Your task to perform on an android device: turn off improve location accuracy Image 0: 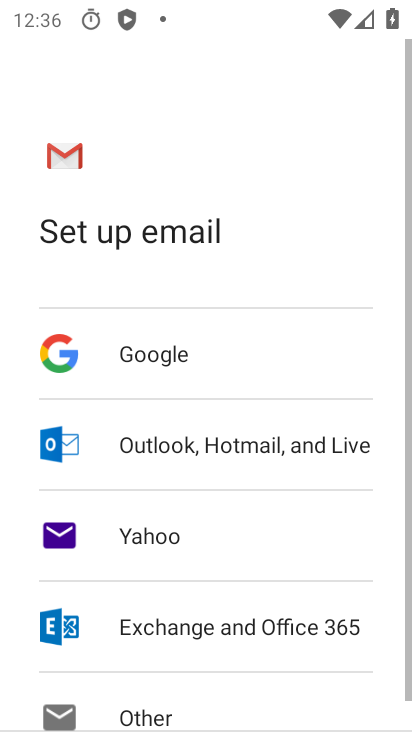
Step 0: press home button
Your task to perform on an android device: turn off improve location accuracy Image 1: 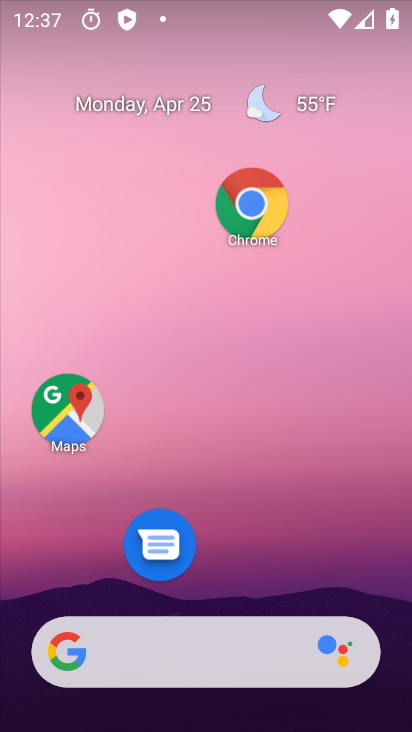
Step 1: drag from (288, 688) to (183, 198)
Your task to perform on an android device: turn off improve location accuracy Image 2: 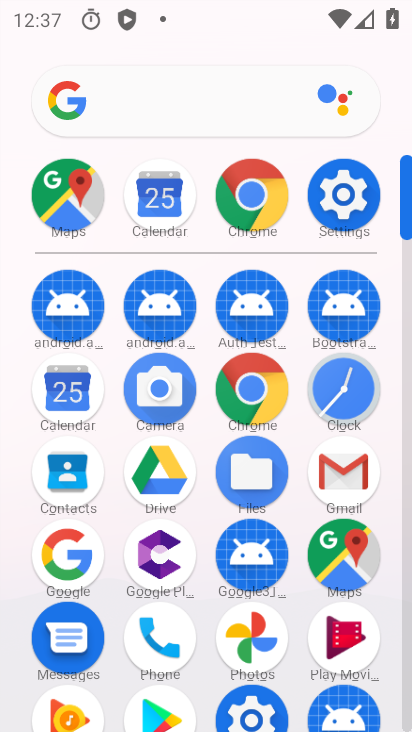
Step 2: click (327, 189)
Your task to perform on an android device: turn off improve location accuracy Image 3: 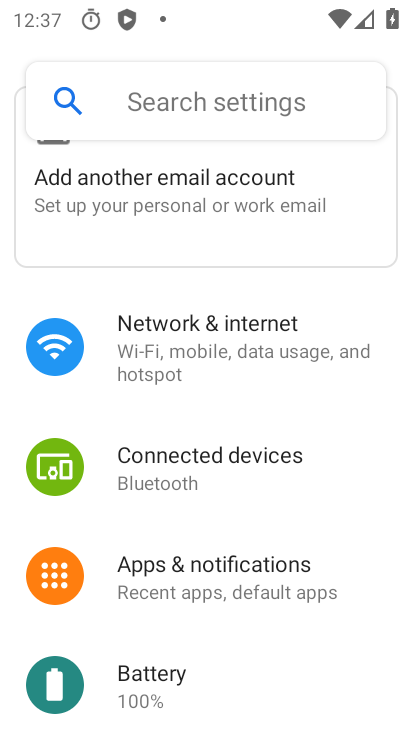
Step 3: click (234, 105)
Your task to perform on an android device: turn off improve location accuracy Image 4: 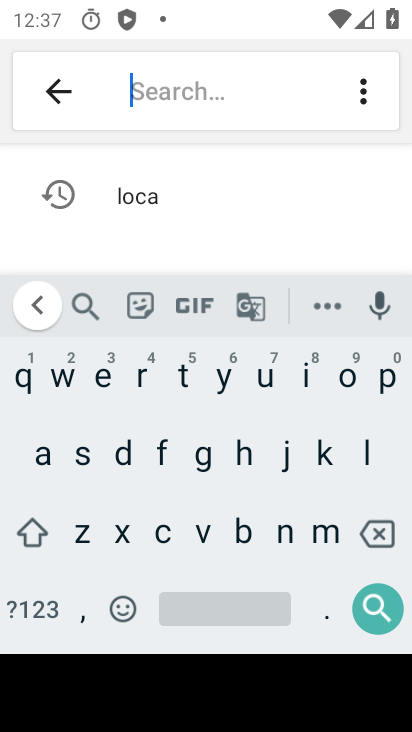
Step 4: click (174, 191)
Your task to perform on an android device: turn off improve location accuracy Image 5: 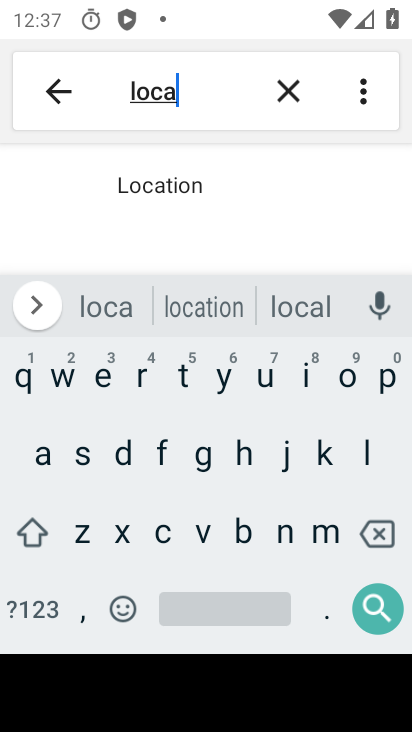
Step 5: drag from (137, 215) to (145, 139)
Your task to perform on an android device: turn off improve location accuracy Image 6: 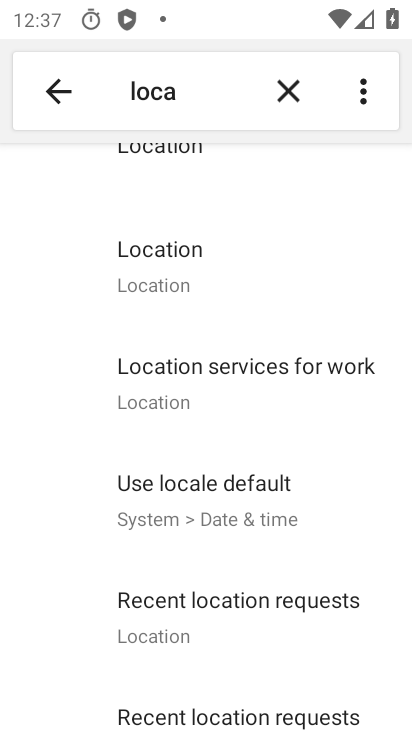
Step 6: click (161, 278)
Your task to perform on an android device: turn off improve location accuracy Image 7: 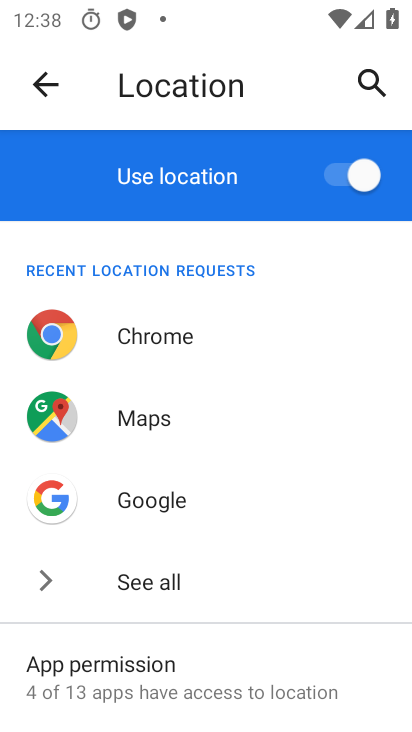
Step 7: drag from (128, 649) to (178, 500)
Your task to perform on an android device: turn off improve location accuracy Image 8: 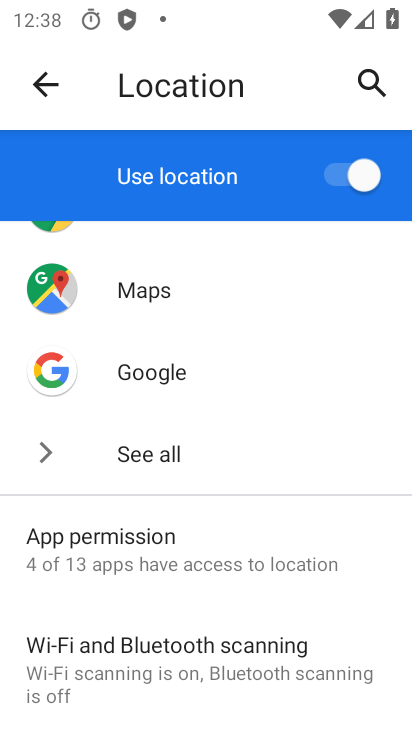
Step 8: drag from (117, 624) to (206, 460)
Your task to perform on an android device: turn off improve location accuracy Image 9: 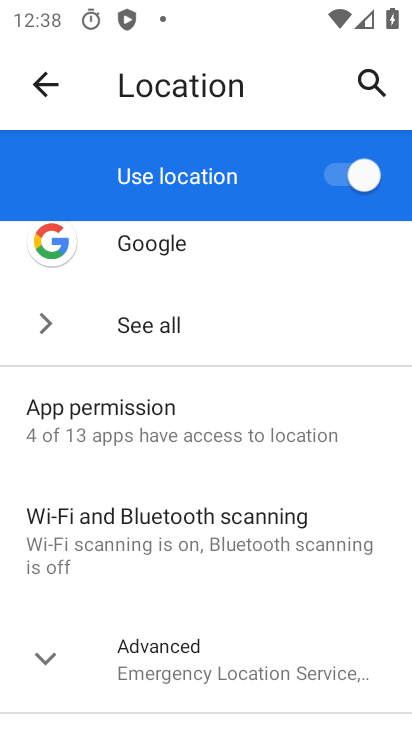
Step 9: click (61, 671)
Your task to perform on an android device: turn off improve location accuracy Image 10: 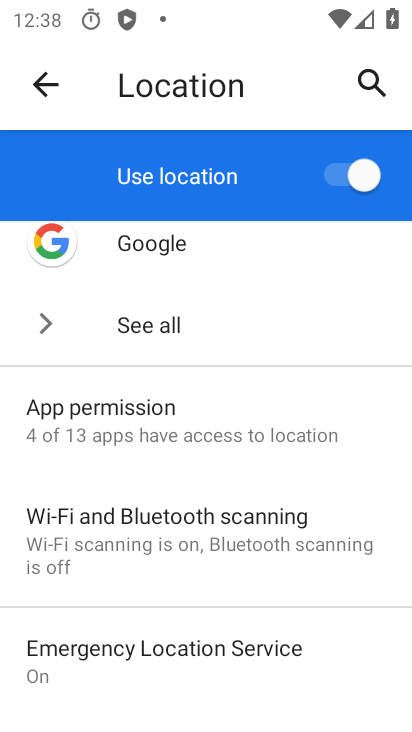
Step 10: drag from (187, 611) to (234, 423)
Your task to perform on an android device: turn off improve location accuracy Image 11: 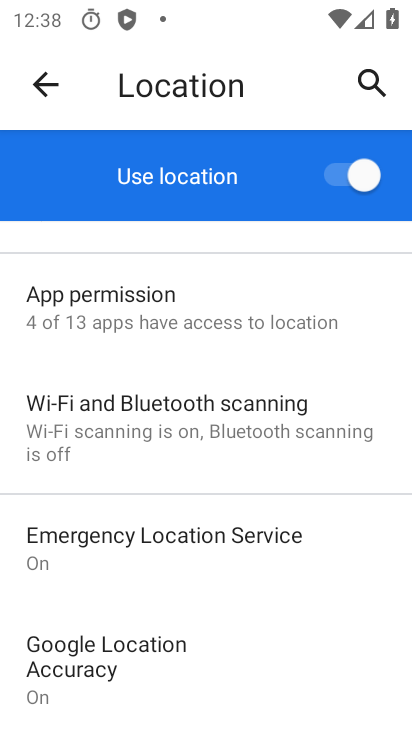
Step 11: click (83, 648)
Your task to perform on an android device: turn off improve location accuracy Image 12: 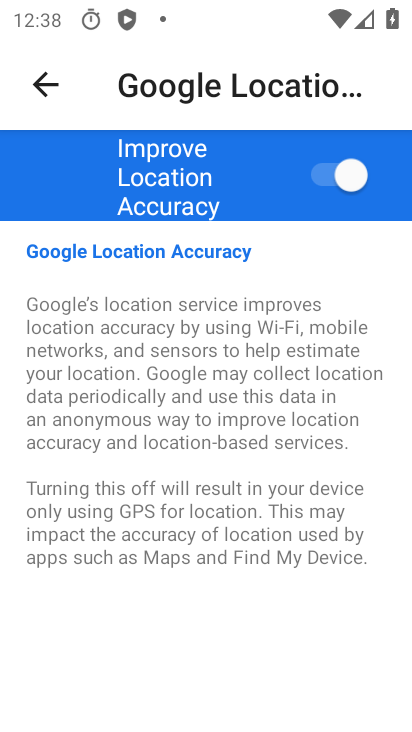
Step 12: click (326, 184)
Your task to perform on an android device: turn off improve location accuracy Image 13: 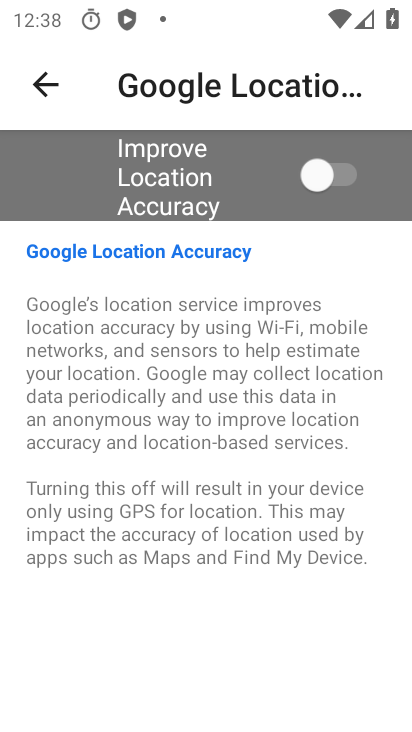
Step 13: task complete